Your task to perform on an android device: Open the web browser Image 0: 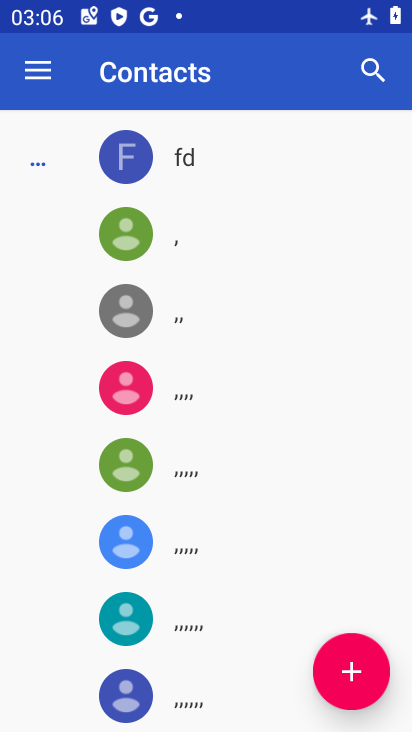
Step 0: press home button
Your task to perform on an android device: Open the web browser Image 1: 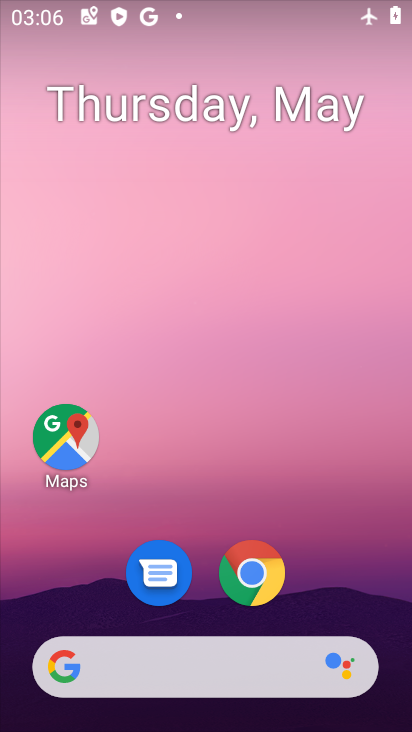
Step 1: click (255, 577)
Your task to perform on an android device: Open the web browser Image 2: 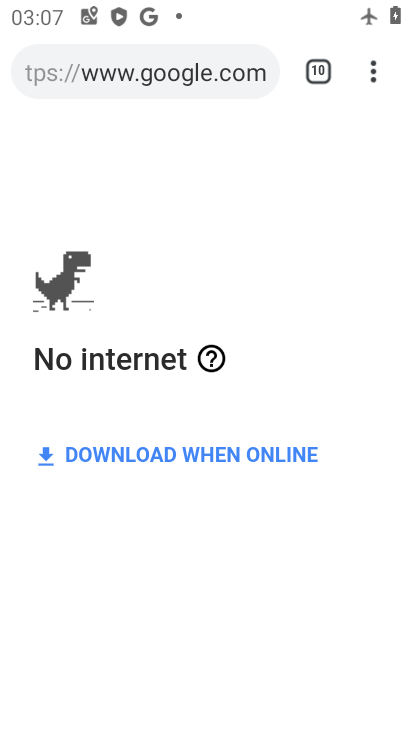
Step 2: task complete